Your task to perform on an android device: Go to eBay Image 0: 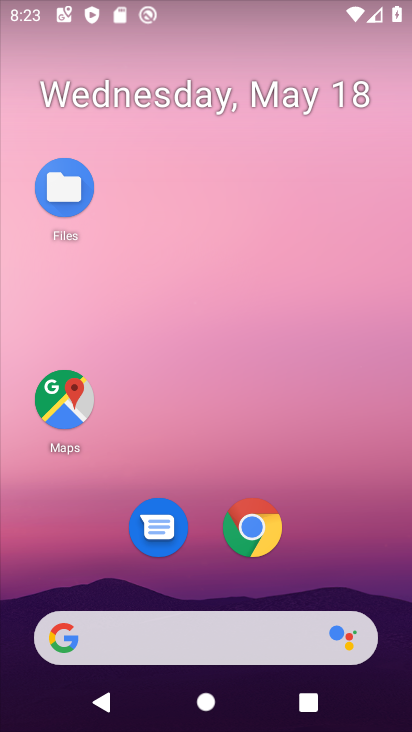
Step 0: drag from (233, 710) to (191, 177)
Your task to perform on an android device: Go to eBay Image 1: 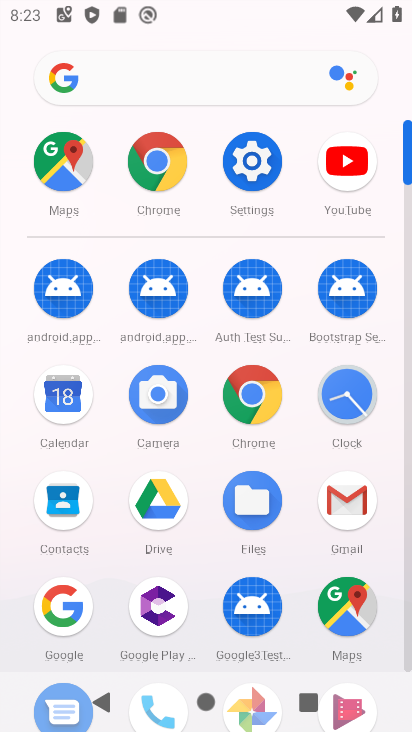
Step 1: drag from (269, 563) to (162, 50)
Your task to perform on an android device: Go to eBay Image 2: 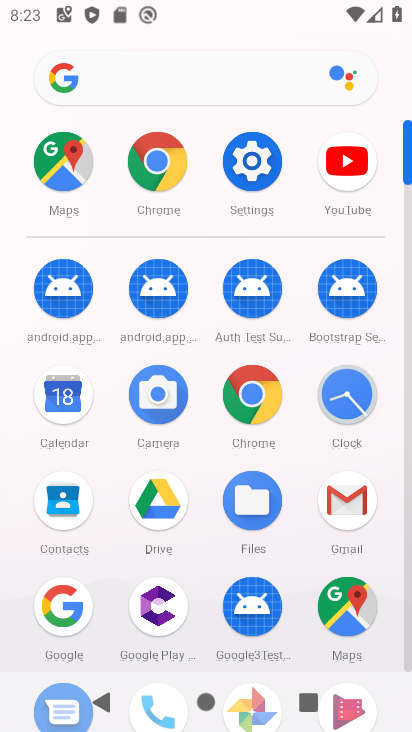
Step 2: drag from (321, 516) to (247, 37)
Your task to perform on an android device: Go to eBay Image 3: 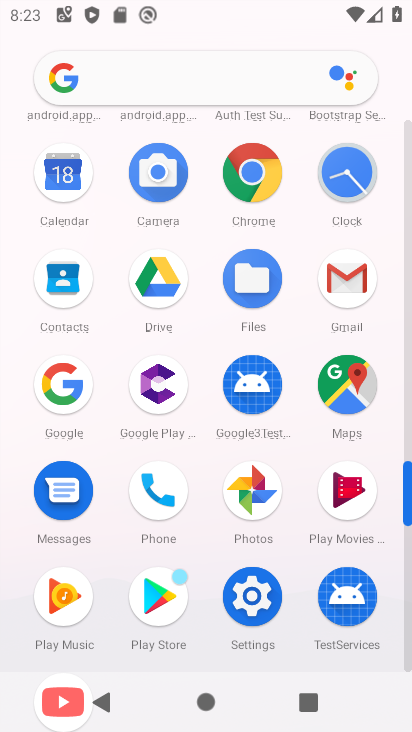
Step 3: click (149, 167)
Your task to perform on an android device: Go to eBay Image 4: 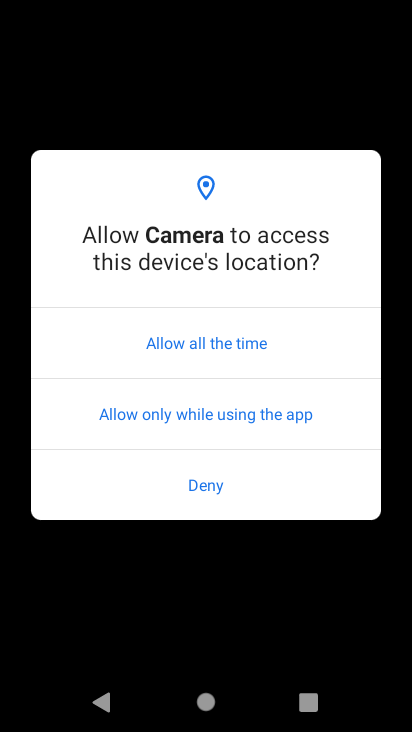
Step 4: click (203, 351)
Your task to perform on an android device: Go to eBay Image 5: 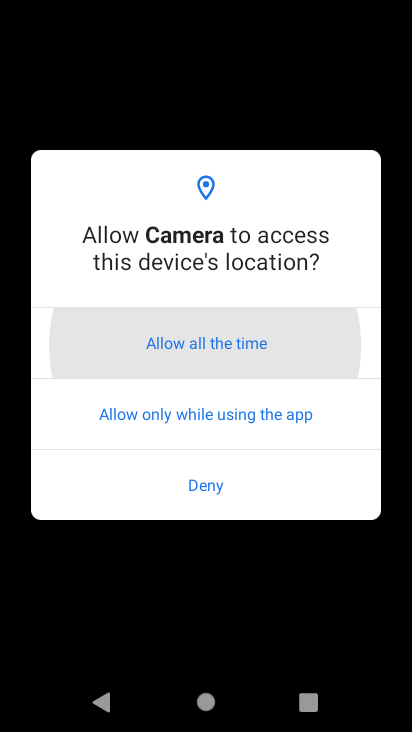
Step 5: click (203, 351)
Your task to perform on an android device: Go to eBay Image 6: 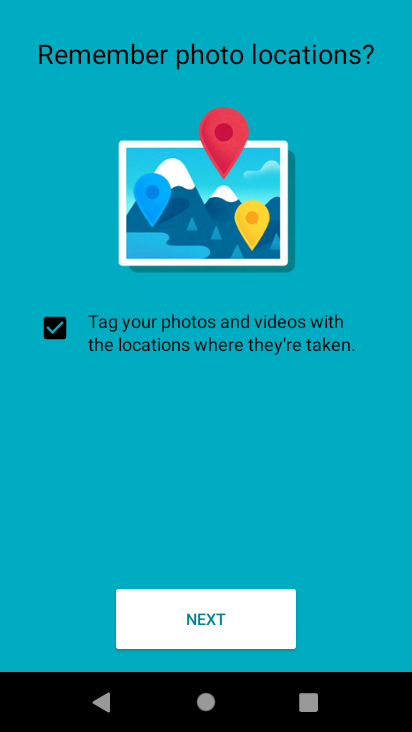
Step 6: click (222, 612)
Your task to perform on an android device: Go to eBay Image 7: 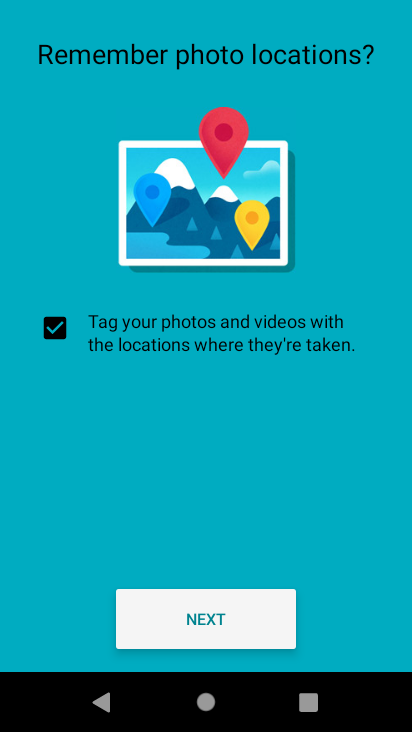
Step 7: click (226, 613)
Your task to perform on an android device: Go to eBay Image 8: 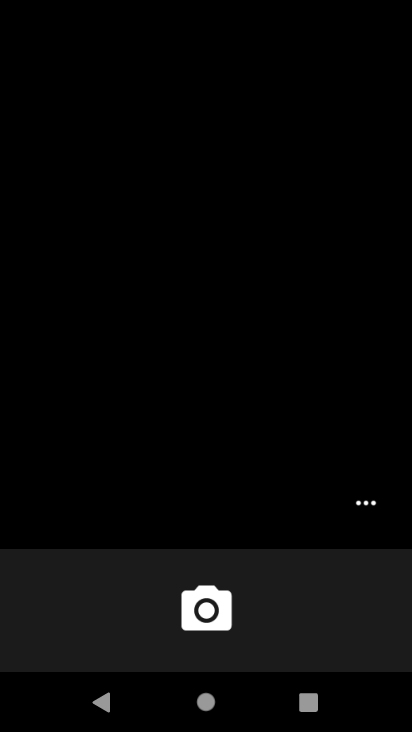
Step 8: press home button
Your task to perform on an android device: Go to eBay Image 9: 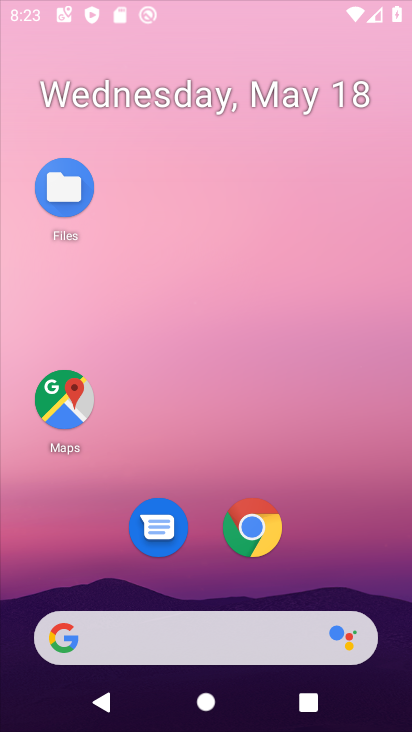
Step 9: press home button
Your task to perform on an android device: Go to eBay Image 10: 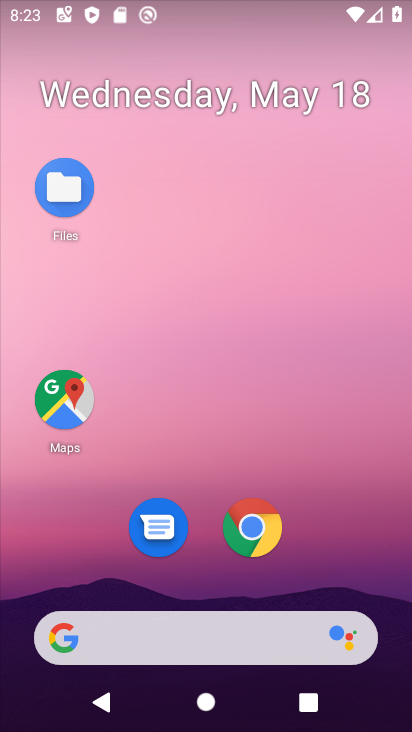
Step 10: drag from (281, 690) to (225, 248)
Your task to perform on an android device: Go to eBay Image 11: 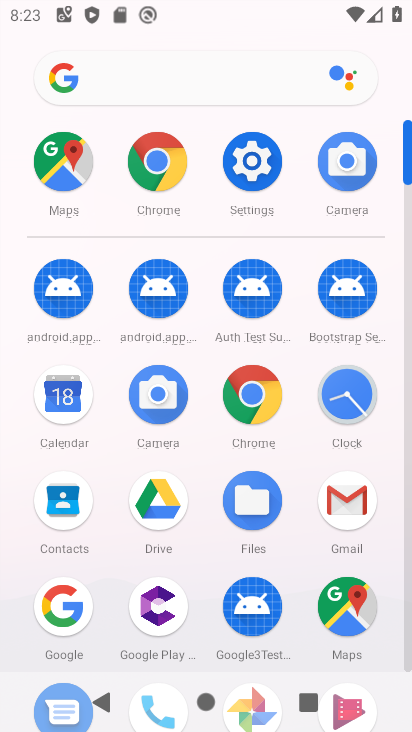
Step 11: click (149, 167)
Your task to perform on an android device: Go to eBay Image 12: 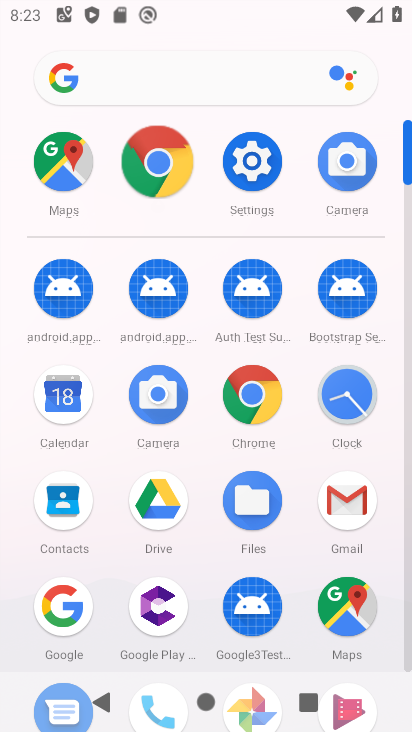
Step 12: click (156, 161)
Your task to perform on an android device: Go to eBay Image 13: 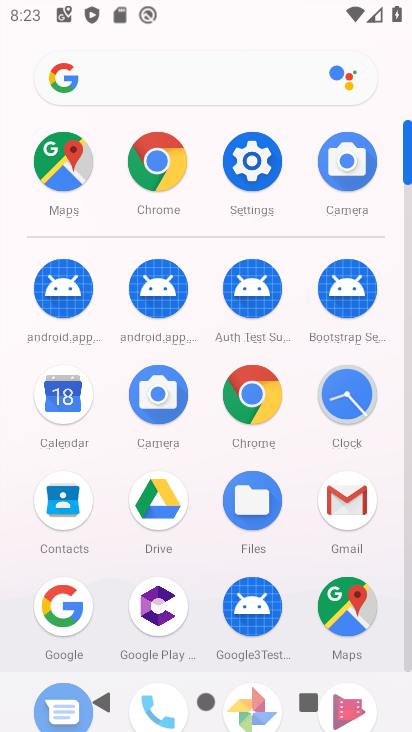
Step 13: click (161, 171)
Your task to perform on an android device: Go to eBay Image 14: 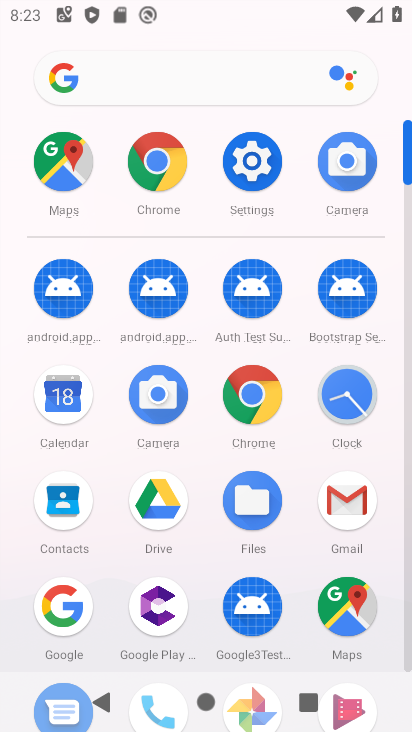
Step 14: click (161, 171)
Your task to perform on an android device: Go to eBay Image 15: 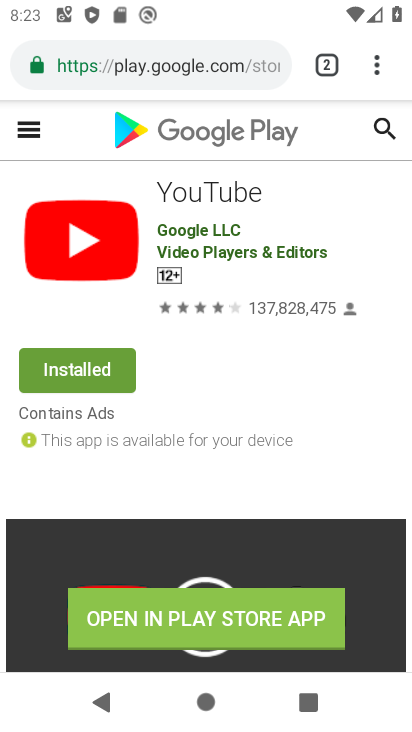
Step 15: click (162, 168)
Your task to perform on an android device: Go to eBay Image 16: 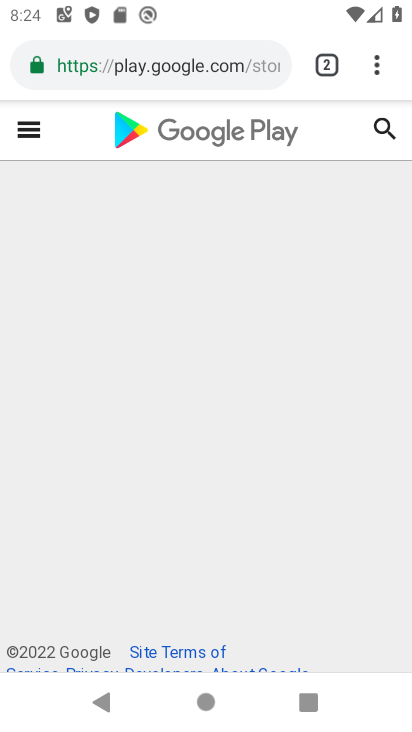
Step 16: press back button
Your task to perform on an android device: Go to eBay Image 17: 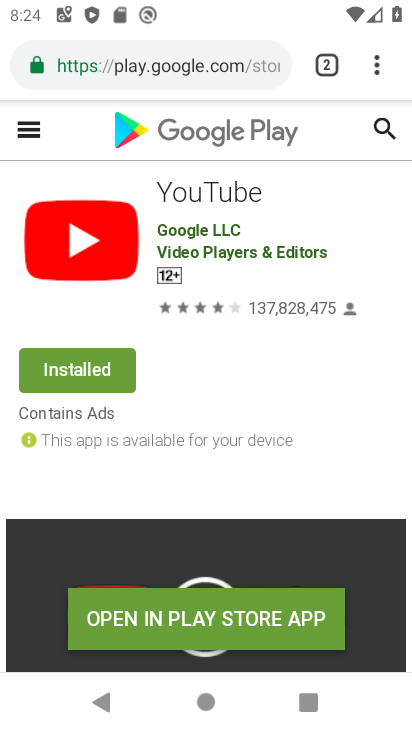
Step 17: press back button
Your task to perform on an android device: Go to eBay Image 18: 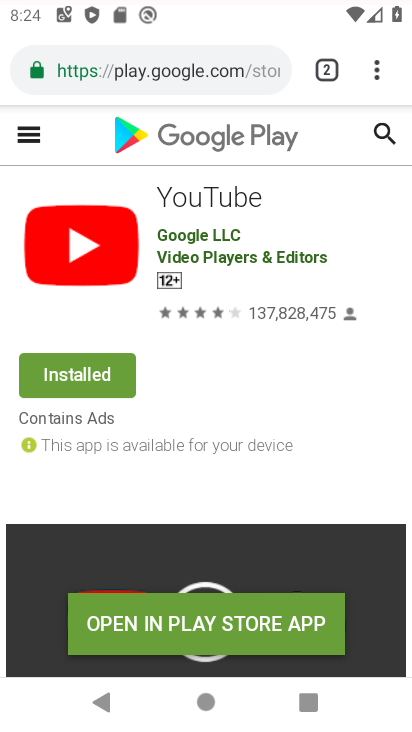
Step 18: press back button
Your task to perform on an android device: Go to eBay Image 19: 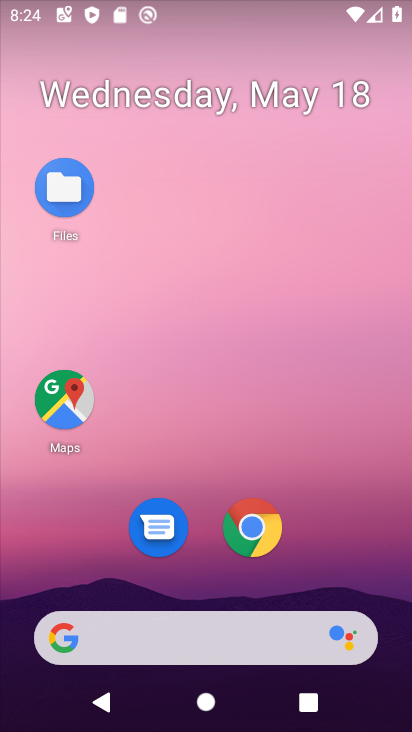
Step 19: drag from (266, 675) to (95, 111)
Your task to perform on an android device: Go to eBay Image 20: 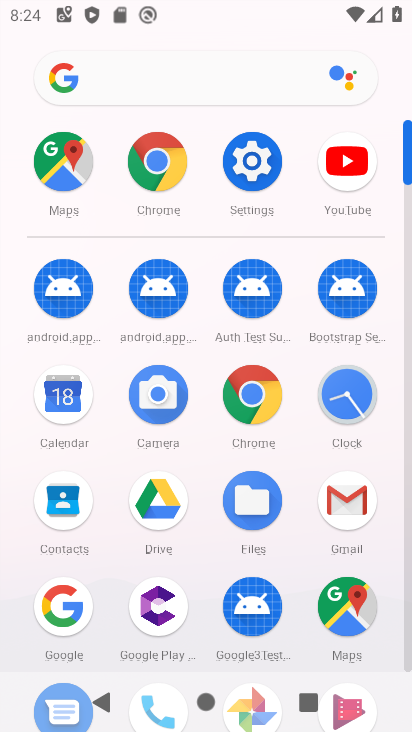
Step 20: drag from (242, 578) to (178, 81)
Your task to perform on an android device: Go to eBay Image 21: 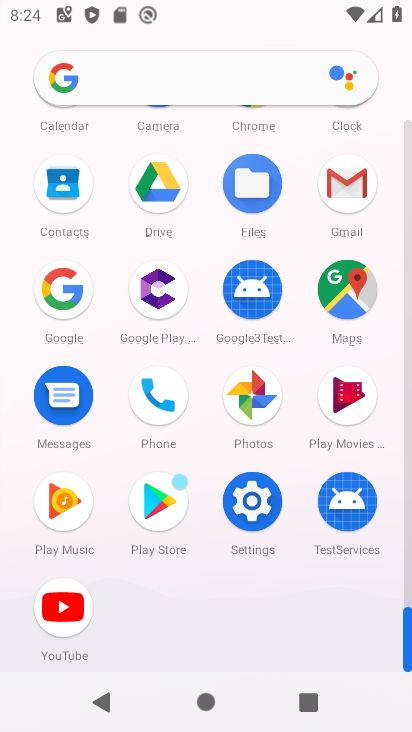
Step 21: drag from (202, 288) to (254, 662)
Your task to perform on an android device: Go to eBay Image 22: 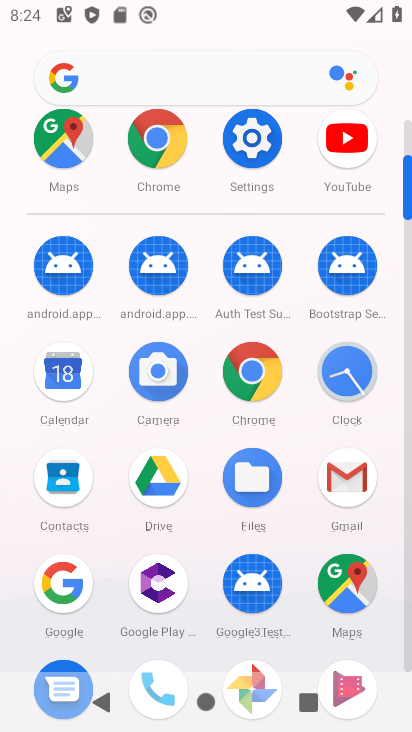
Step 22: click (249, 380)
Your task to perform on an android device: Go to eBay Image 23: 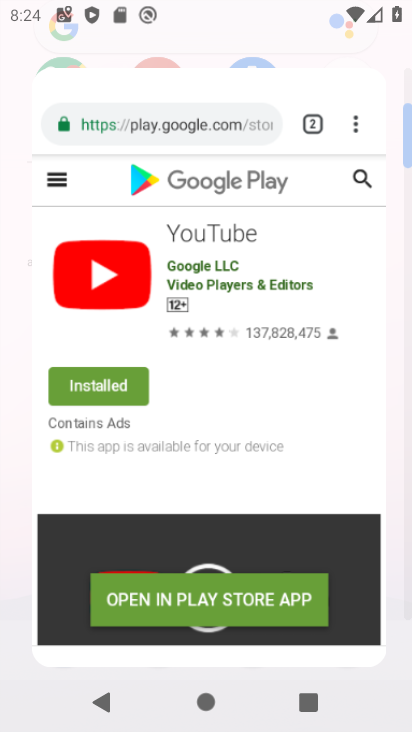
Step 23: click (249, 380)
Your task to perform on an android device: Go to eBay Image 24: 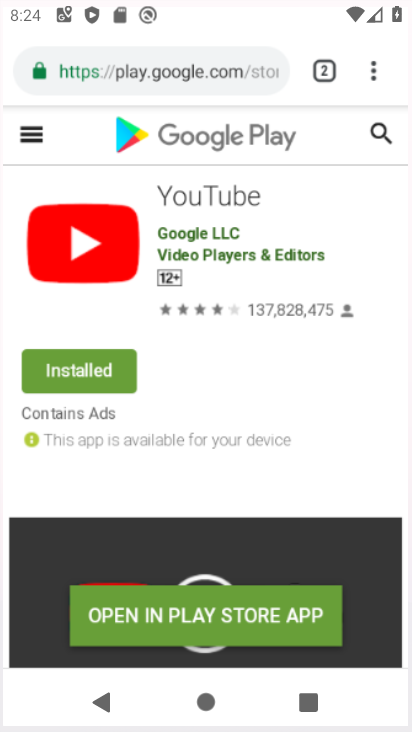
Step 24: click (250, 379)
Your task to perform on an android device: Go to eBay Image 25: 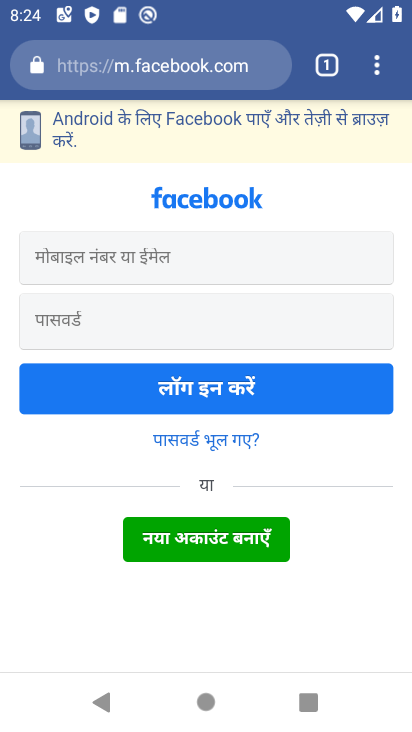
Step 25: press back button
Your task to perform on an android device: Go to eBay Image 26: 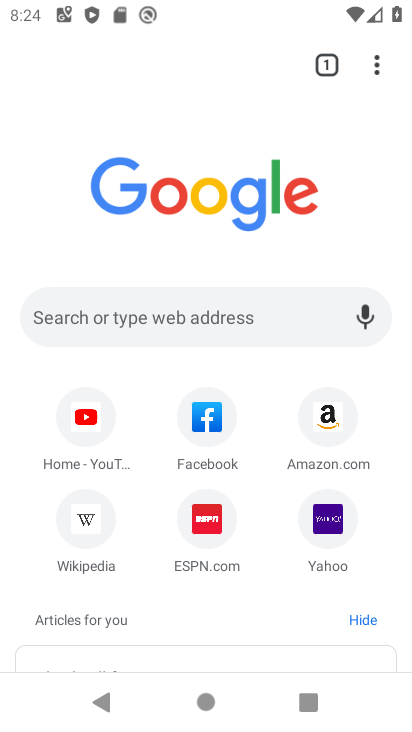
Step 26: click (66, 322)
Your task to perform on an android device: Go to eBay Image 27: 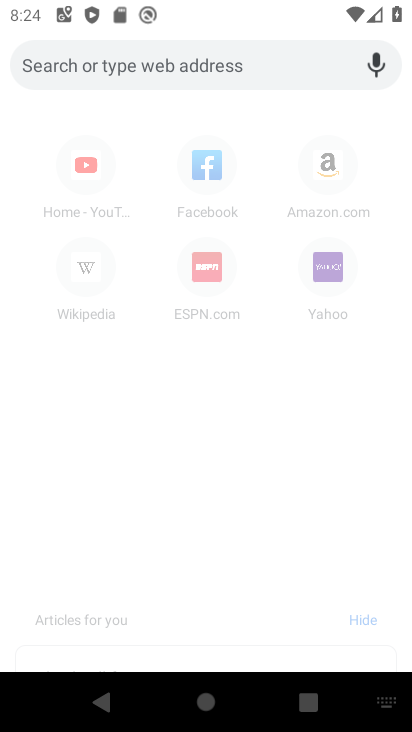
Step 27: type "www.ebay.com"
Your task to perform on an android device: Go to eBay Image 28: 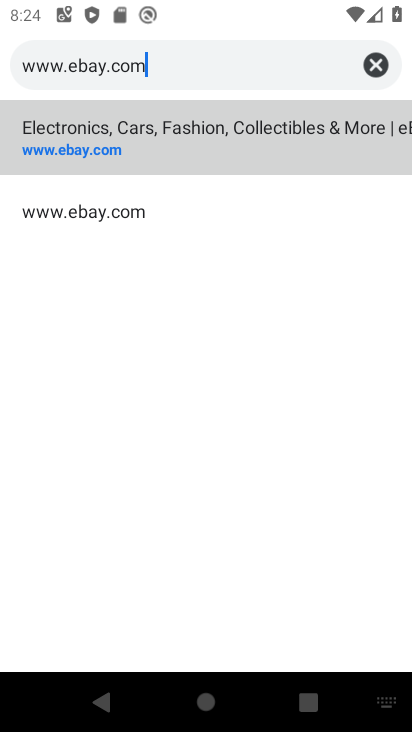
Step 28: click (75, 161)
Your task to perform on an android device: Go to eBay Image 29: 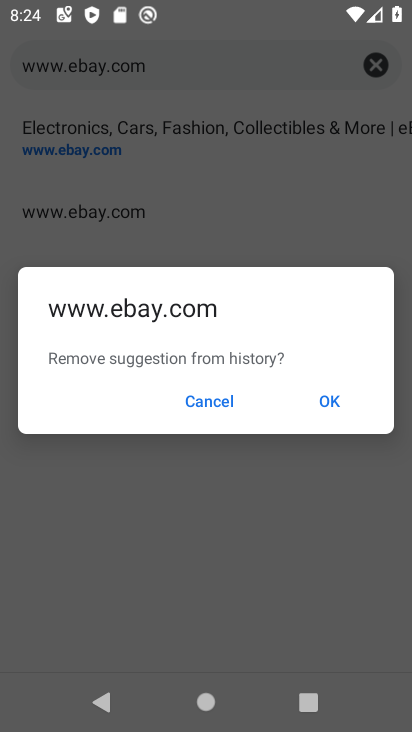
Step 29: click (329, 401)
Your task to perform on an android device: Go to eBay Image 30: 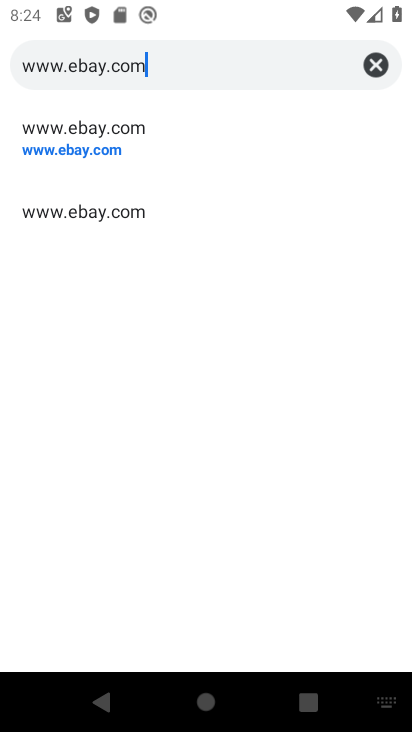
Step 30: click (88, 151)
Your task to perform on an android device: Go to eBay Image 31: 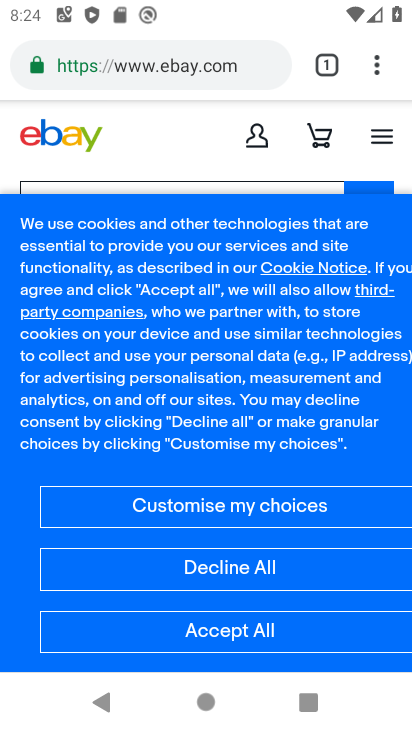
Step 31: task complete